Your task to perform on an android device: Go to accessibility settings Image 0: 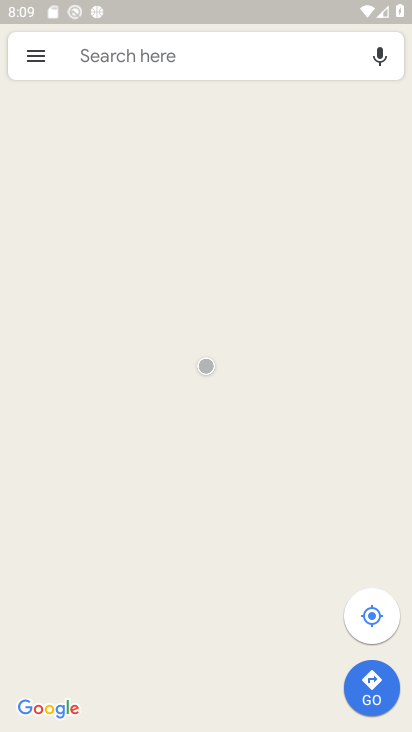
Step 0: press home button
Your task to perform on an android device: Go to accessibility settings Image 1: 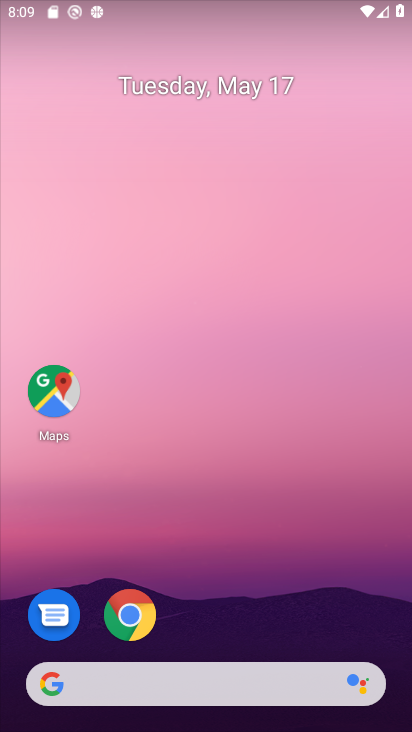
Step 1: drag from (301, 632) to (303, 132)
Your task to perform on an android device: Go to accessibility settings Image 2: 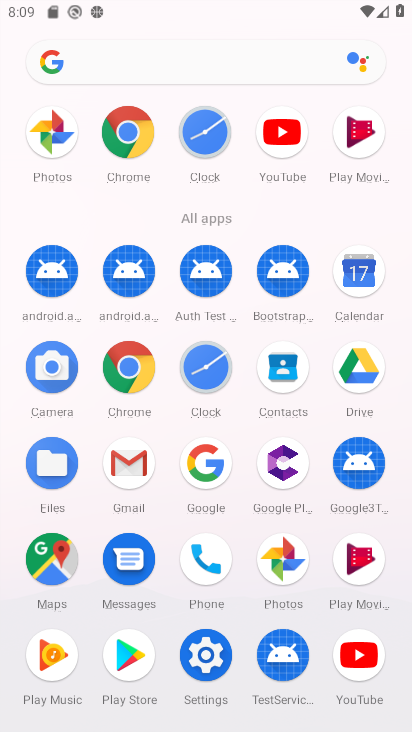
Step 2: click (209, 650)
Your task to perform on an android device: Go to accessibility settings Image 3: 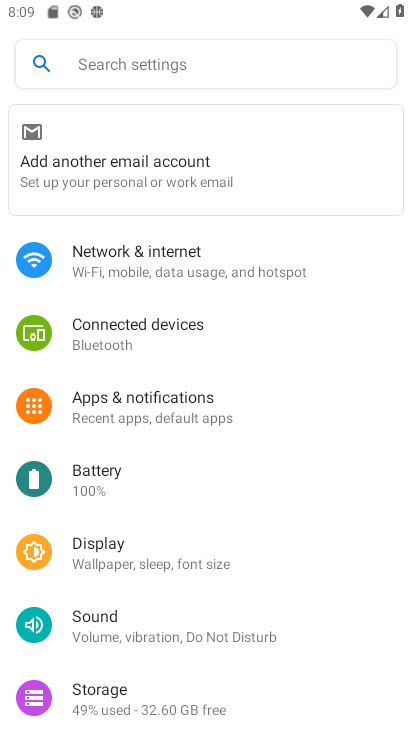
Step 3: drag from (200, 606) to (280, 185)
Your task to perform on an android device: Go to accessibility settings Image 4: 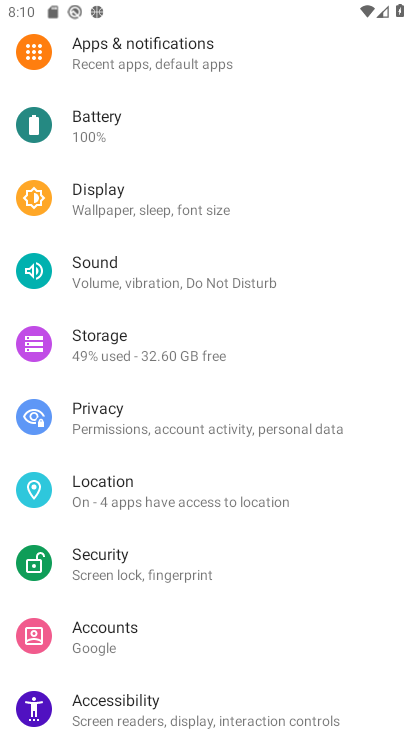
Step 4: click (156, 718)
Your task to perform on an android device: Go to accessibility settings Image 5: 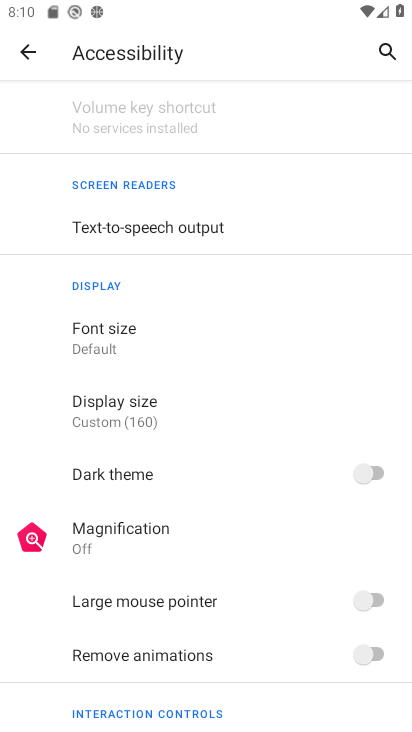
Step 5: task complete